Your task to perform on an android device: Open Google Chrome and open the bookmarks view Image 0: 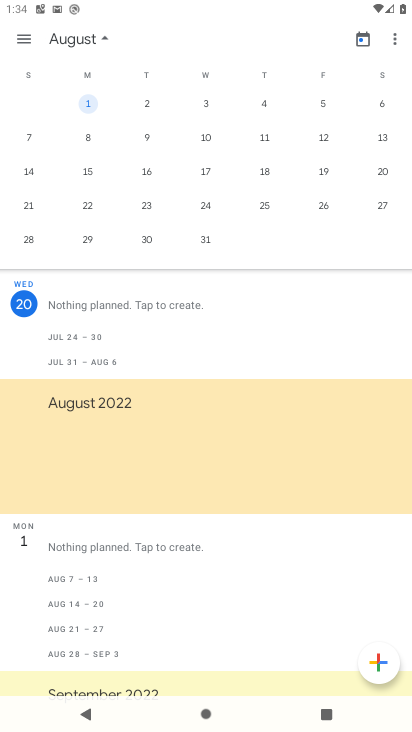
Step 0: press home button
Your task to perform on an android device: Open Google Chrome and open the bookmarks view Image 1: 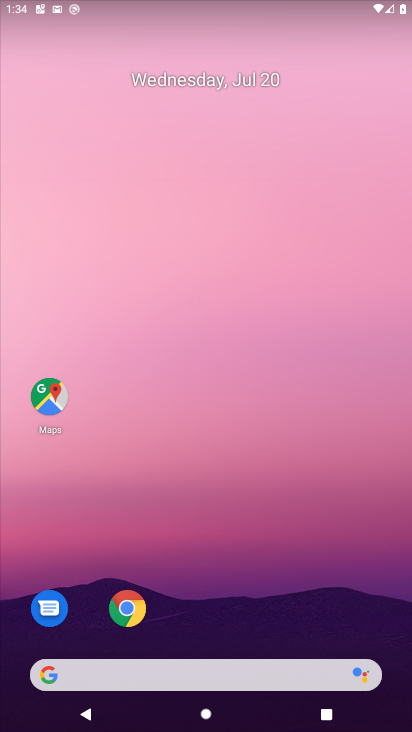
Step 1: click (126, 604)
Your task to perform on an android device: Open Google Chrome and open the bookmarks view Image 2: 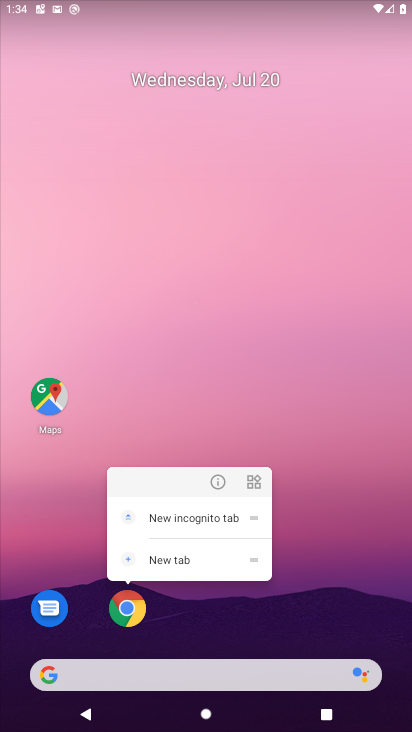
Step 2: click (125, 603)
Your task to perform on an android device: Open Google Chrome and open the bookmarks view Image 3: 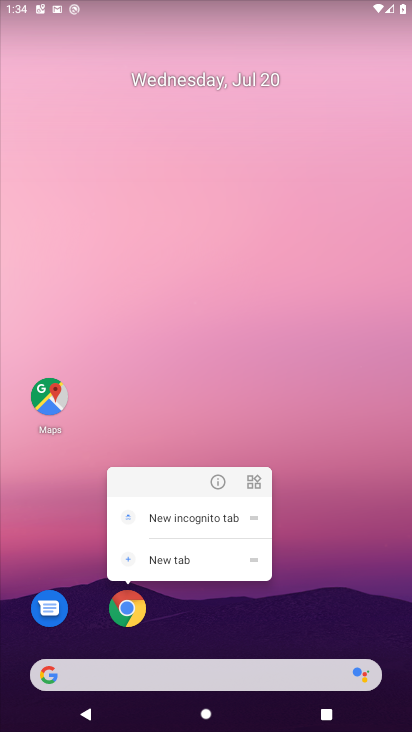
Step 3: click (117, 610)
Your task to perform on an android device: Open Google Chrome and open the bookmarks view Image 4: 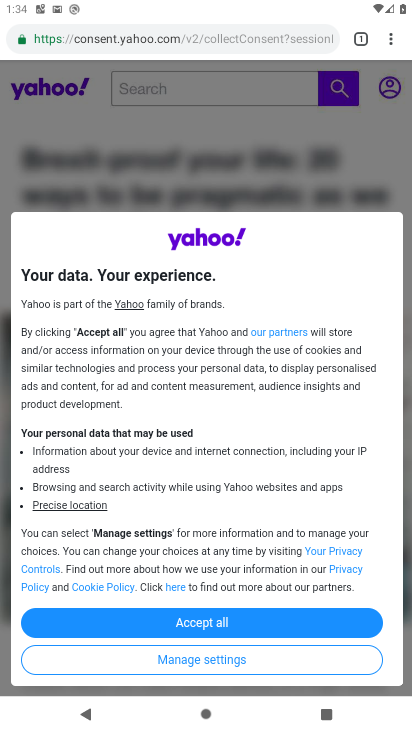
Step 4: click (382, 39)
Your task to perform on an android device: Open Google Chrome and open the bookmarks view Image 5: 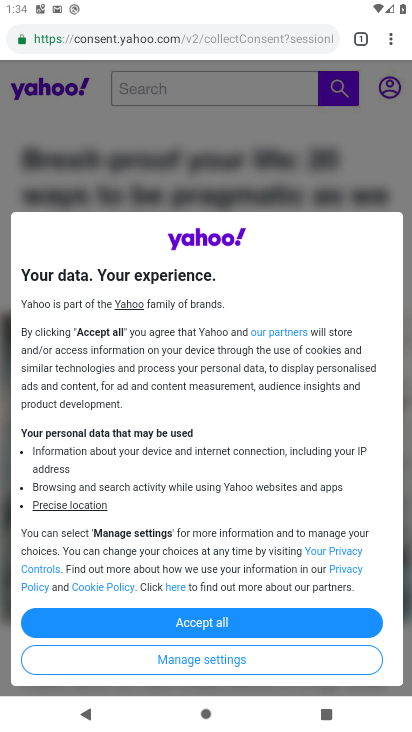
Step 5: click (395, 38)
Your task to perform on an android device: Open Google Chrome and open the bookmarks view Image 6: 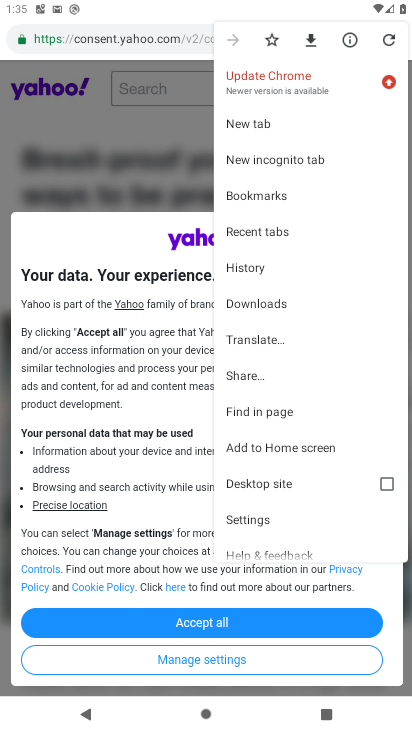
Step 6: click (248, 189)
Your task to perform on an android device: Open Google Chrome and open the bookmarks view Image 7: 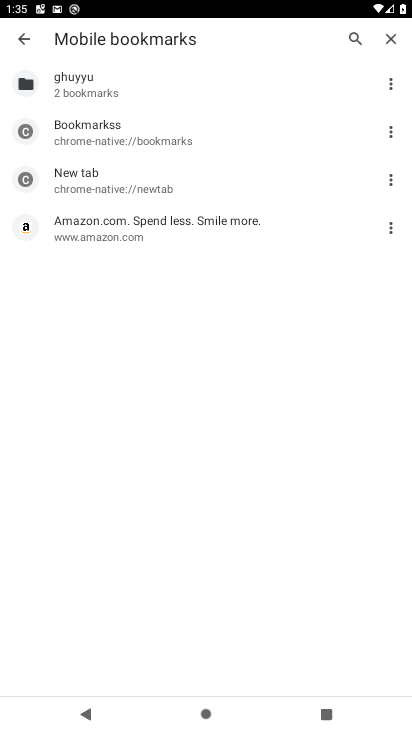
Step 7: task complete